Your task to perform on an android device: find which apps use the phone's location Image 0: 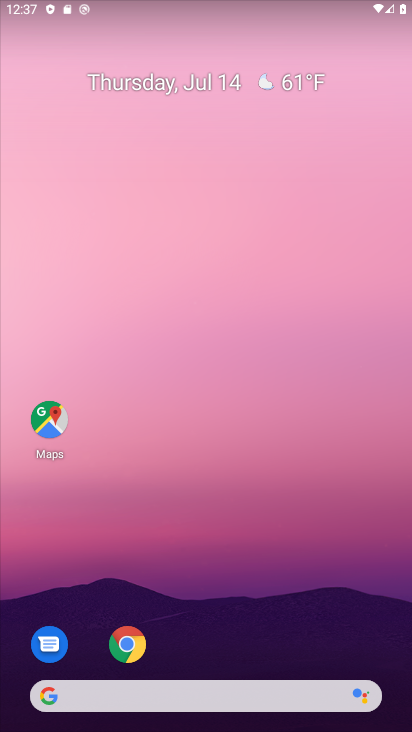
Step 0: drag from (297, 626) to (249, 62)
Your task to perform on an android device: find which apps use the phone's location Image 1: 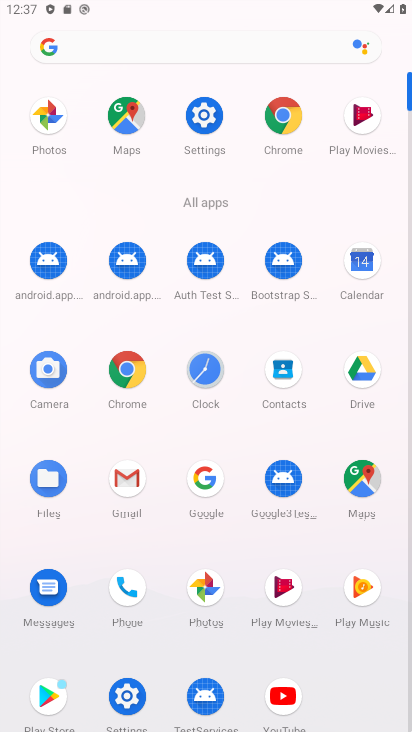
Step 1: click (212, 585)
Your task to perform on an android device: find which apps use the phone's location Image 2: 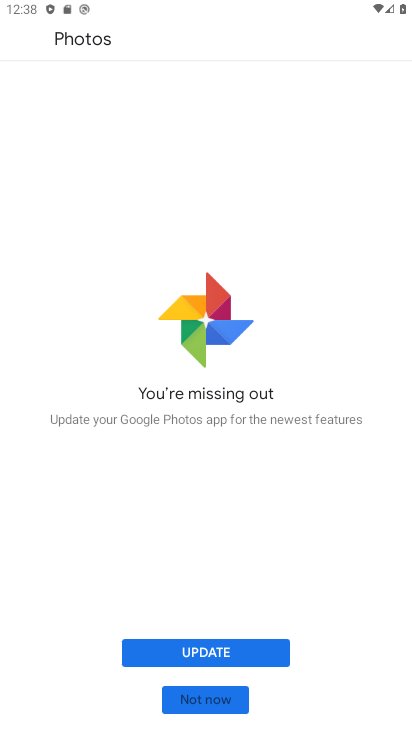
Step 2: press home button
Your task to perform on an android device: find which apps use the phone's location Image 3: 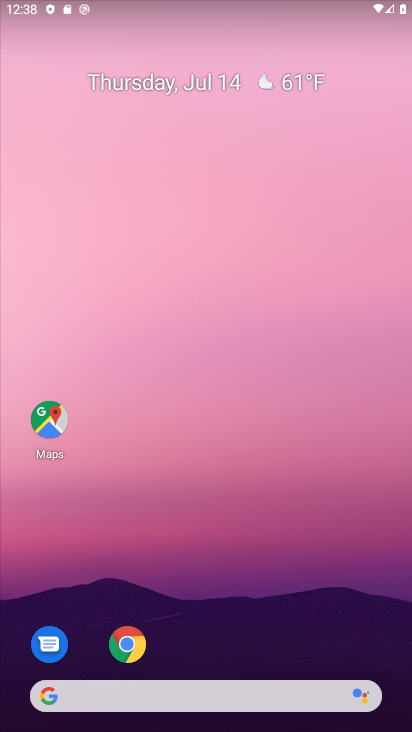
Step 3: drag from (315, 617) to (216, 76)
Your task to perform on an android device: find which apps use the phone's location Image 4: 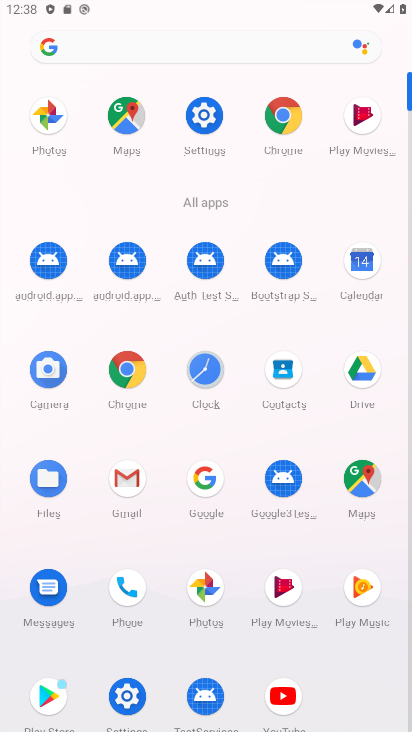
Step 4: click (202, 121)
Your task to perform on an android device: find which apps use the phone's location Image 5: 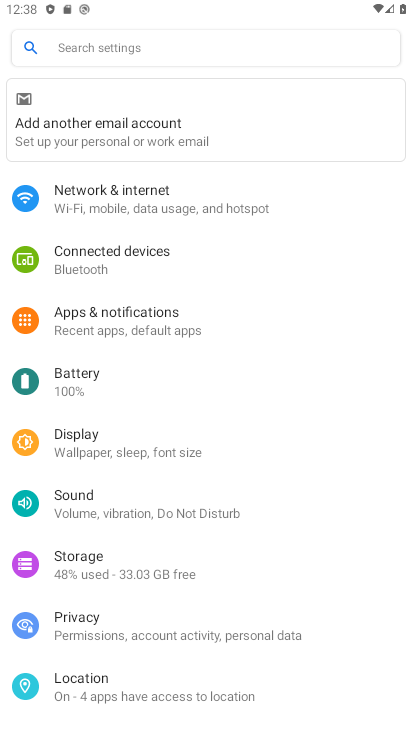
Step 5: click (148, 688)
Your task to perform on an android device: find which apps use the phone's location Image 6: 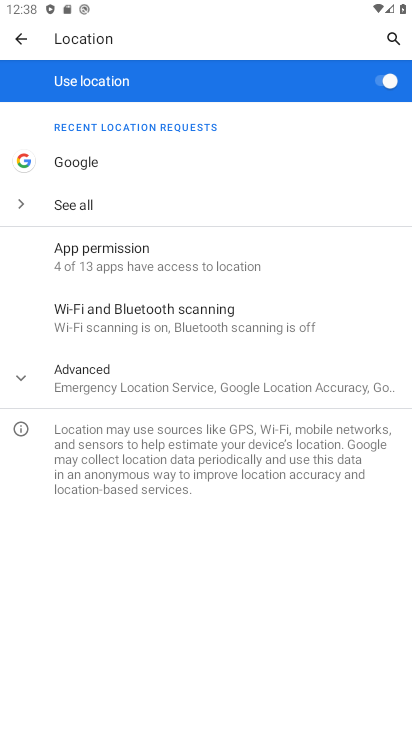
Step 6: click (141, 258)
Your task to perform on an android device: find which apps use the phone's location Image 7: 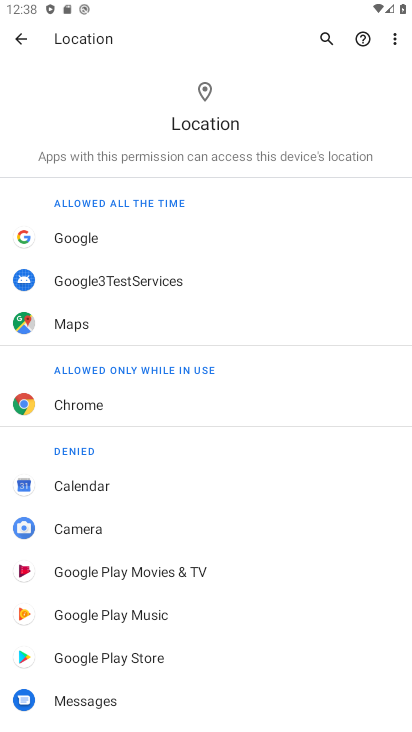
Step 7: task complete